Your task to perform on an android device: toggle data saver in the chrome app Image 0: 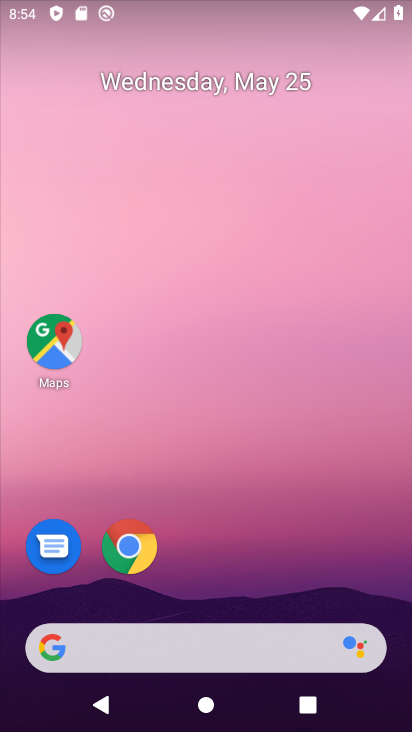
Step 0: drag from (302, 517) to (292, 214)
Your task to perform on an android device: toggle data saver in the chrome app Image 1: 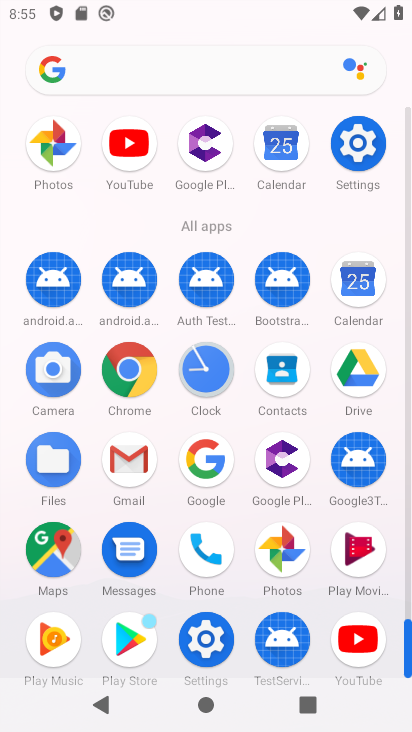
Step 1: click (126, 358)
Your task to perform on an android device: toggle data saver in the chrome app Image 2: 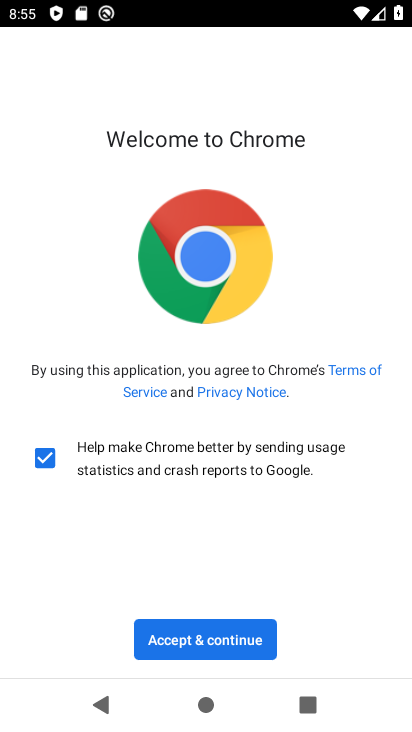
Step 2: click (183, 631)
Your task to perform on an android device: toggle data saver in the chrome app Image 3: 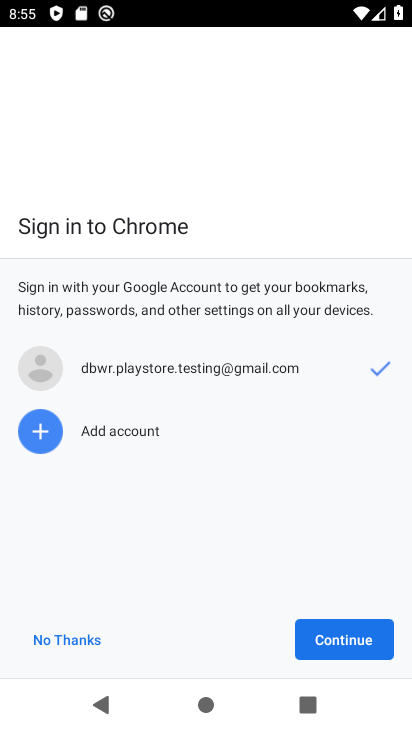
Step 3: click (371, 638)
Your task to perform on an android device: toggle data saver in the chrome app Image 4: 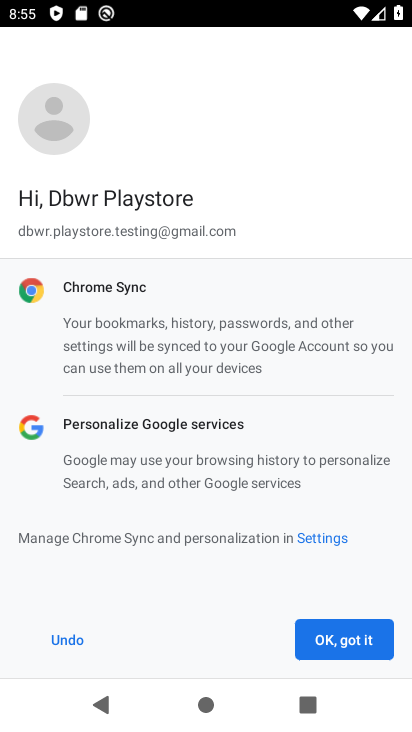
Step 4: click (363, 637)
Your task to perform on an android device: toggle data saver in the chrome app Image 5: 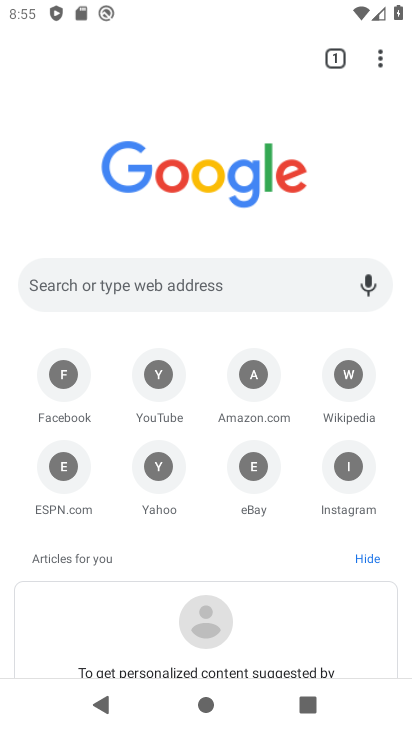
Step 5: click (392, 56)
Your task to perform on an android device: toggle data saver in the chrome app Image 6: 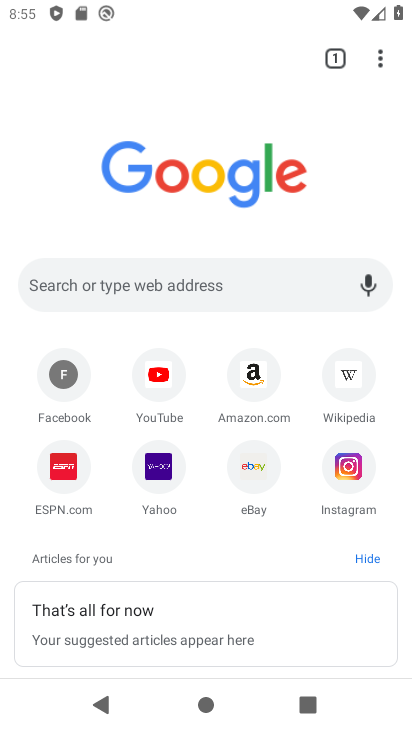
Step 6: click (378, 53)
Your task to perform on an android device: toggle data saver in the chrome app Image 7: 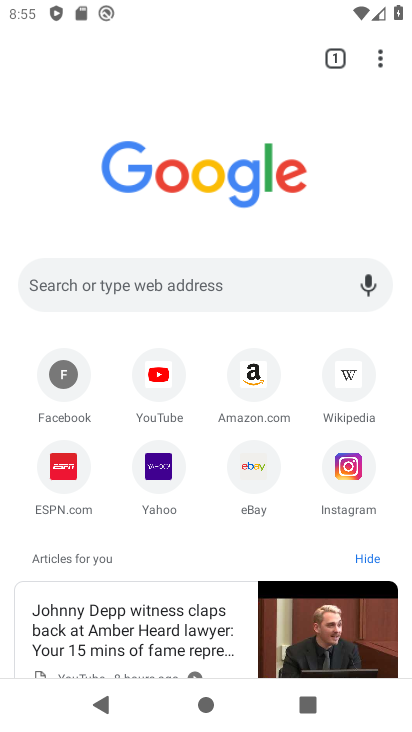
Step 7: click (386, 54)
Your task to perform on an android device: toggle data saver in the chrome app Image 8: 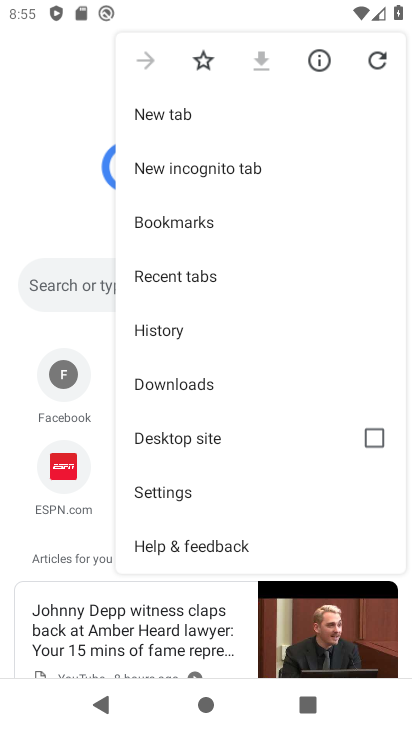
Step 8: click (384, 53)
Your task to perform on an android device: toggle data saver in the chrome app Image 9: 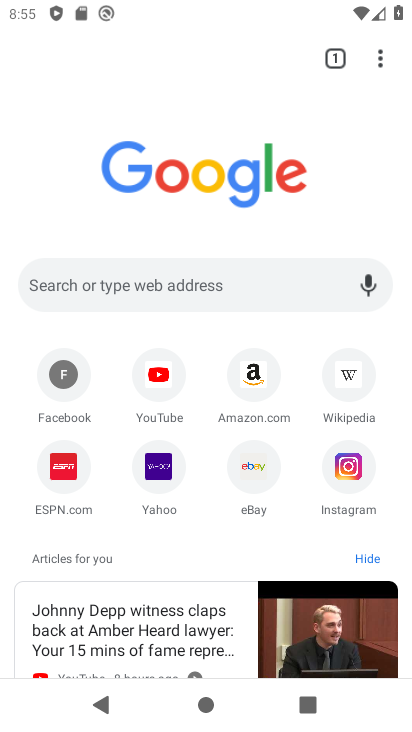
Step 9: click (378, 56)
Your task to perform on an android device: toggle data saver in the chrome app Image 10: 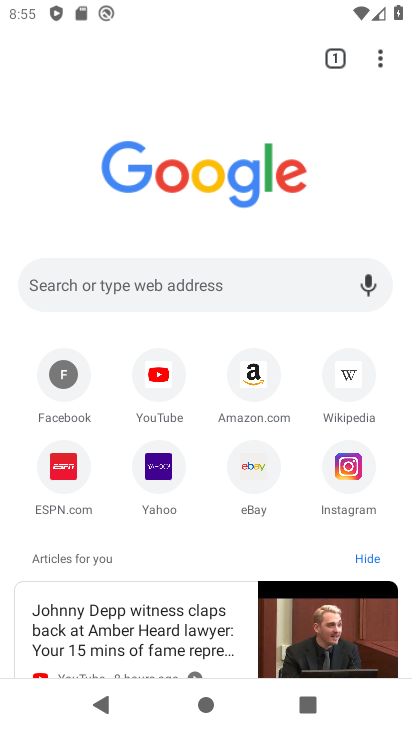
Step 10: click (376, 59)
Your task to perform on an android device: toggle data saver in the chrome app Image 11: 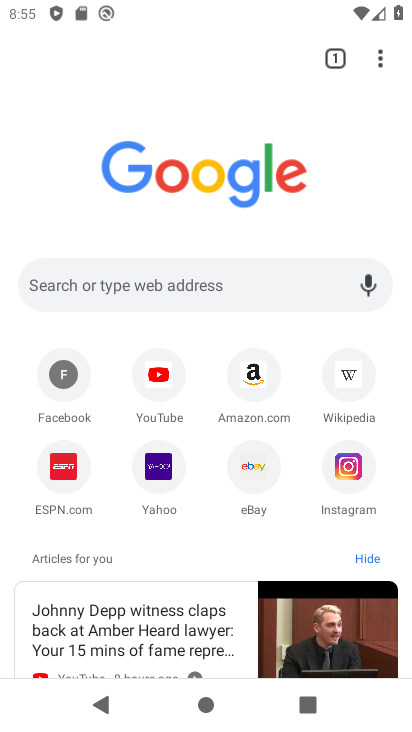
Step 11: click (376, 59)
Your task to perform on an android device: toggle data saver in the chrome app Image 12: 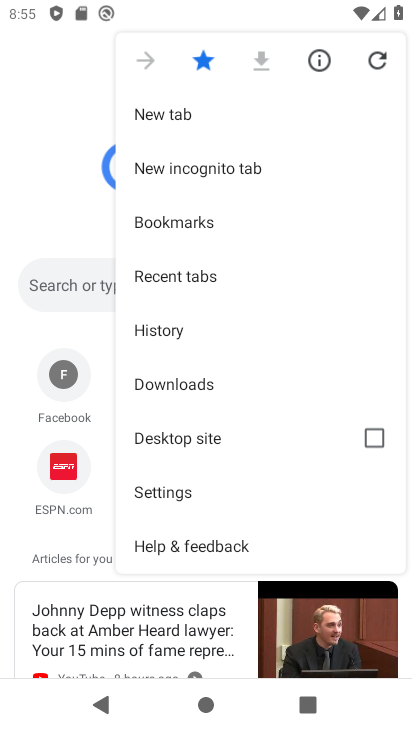
Step 12: click (202, 488)
Your task to perform on an android device: toggle data saver in the chrome app Image 13: 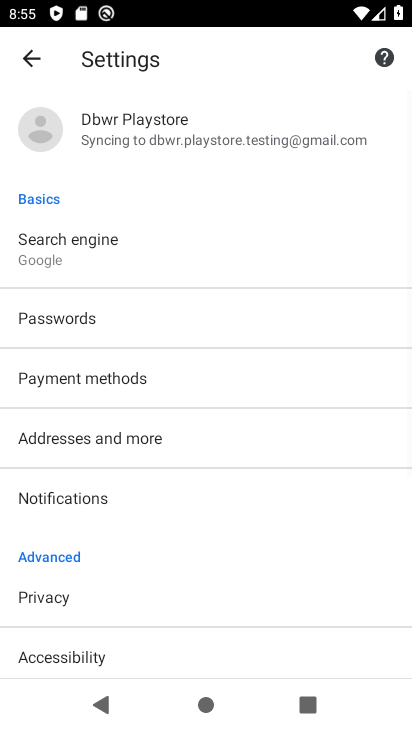
Step 13: drag from (202, 532) to (251, 164)
Your task to perform on an android device: toggle data saver in the chrome app Image 14: 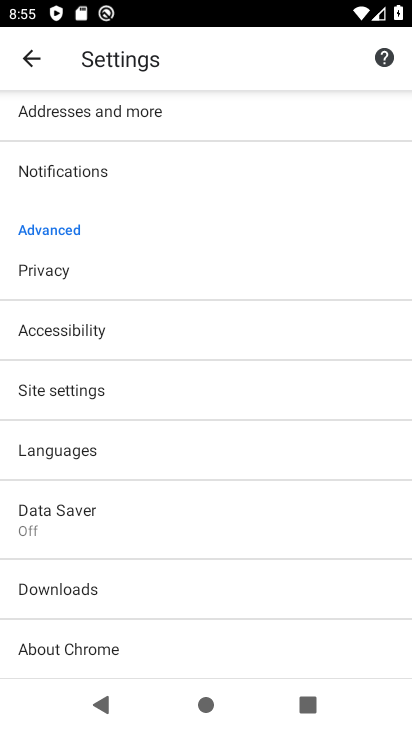
Step 14: click (113, 495)
Your task to perform on an android device: toggle data saver in the chrome app Image 15: 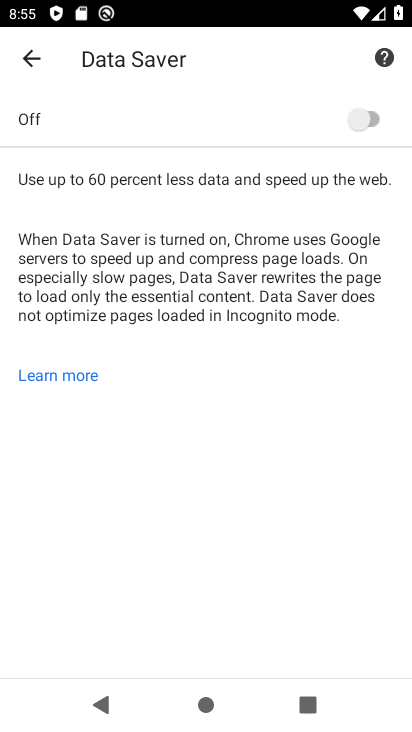
Step 15: click (346, 129)
Your task to perform on an android device: toggle data saver in the chrome app Image 16: 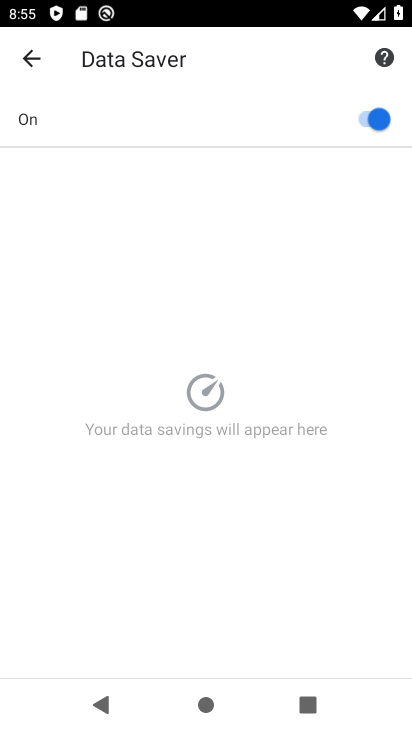
Step 16: click (355, 127)
Your task to perform on an android device: toggle data saver in the chrome app Image 17: 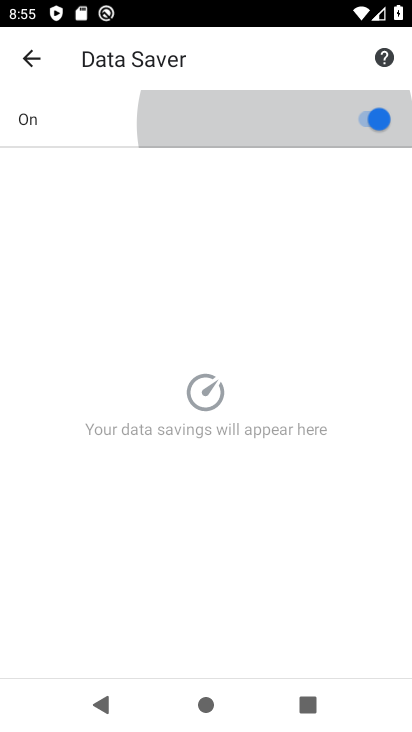
Step 17: click (355, 127)
Your task to perform on an android device: toggle data saver in the chrome app Image 18: 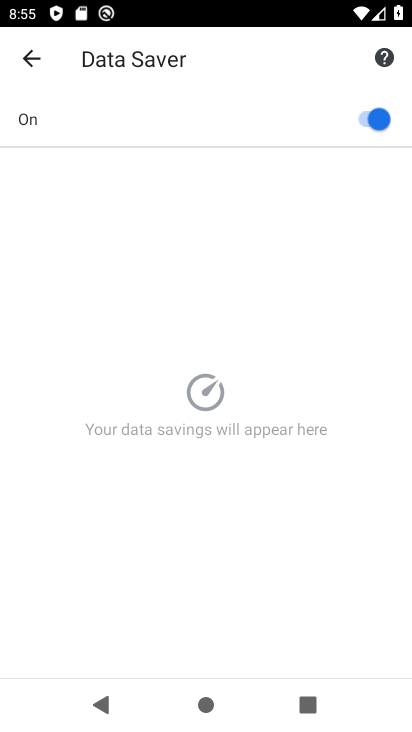
Step 18: task complete